Your task to perform on an android device: turn on wifi Image 0: 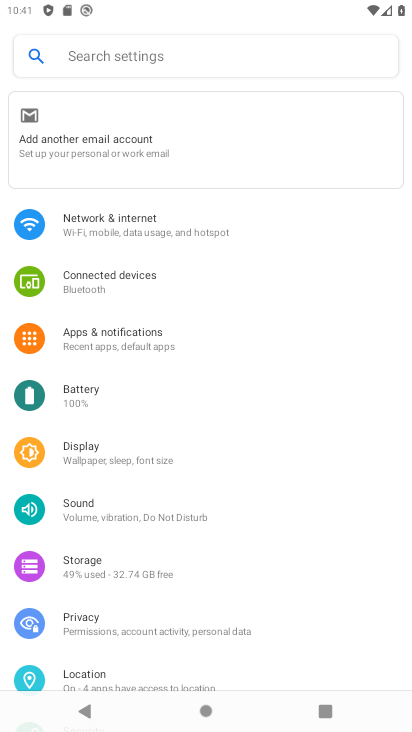
Step 0: click (100, 227)
Your task to perform on an android device: turn on wifi Image 1: 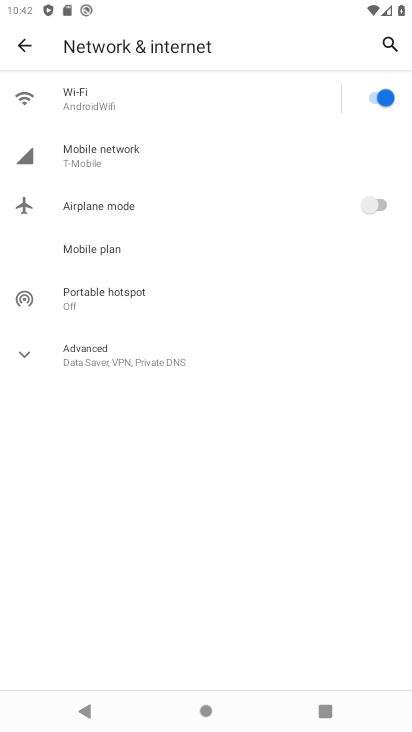
Step 1: task complete